Your task to perform on an android device: make emails show in primary in the gmail app Image 0: 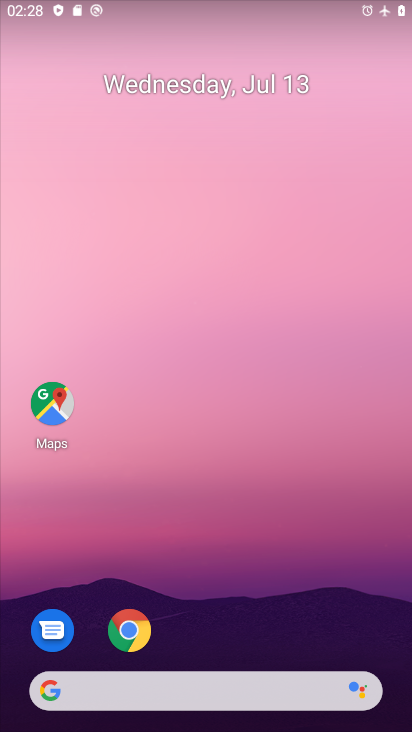
Step 0: drag from (215, 641) to (199, 278)
Your task to perform on an android device: make emails show in primary in the gmail app Image 1: 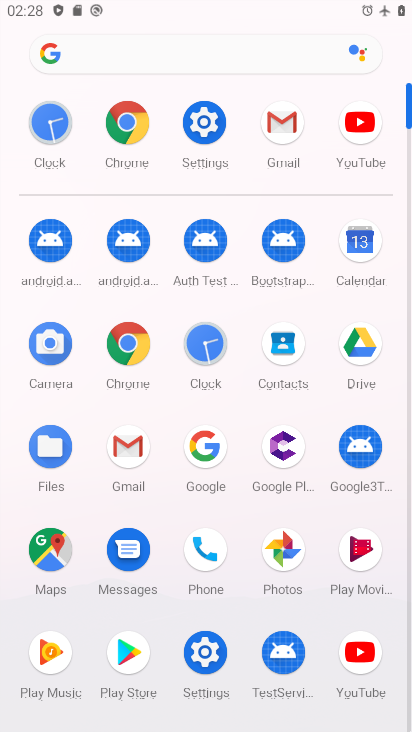
Step 1: click (281, 146)
Your task to perform on an android device: make emails show in primary in the gmail app Image 2: 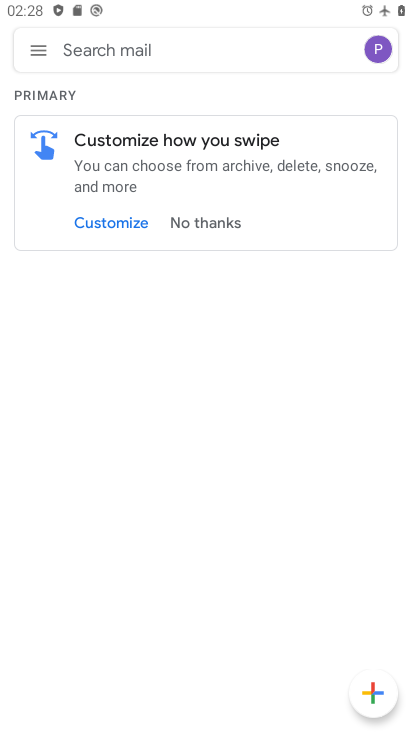
Step 2: click (50, 44)
Your task to perform on an android device: make emails show in primary in the gmail app Image 3: 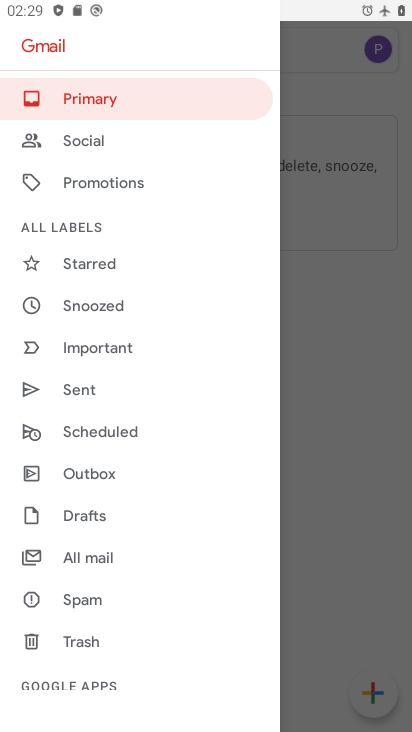
Step 3: drag from (132, 655) to (151, 376)
Your task to perform on an android device: make emails show in primary in the gmail app Image 4: 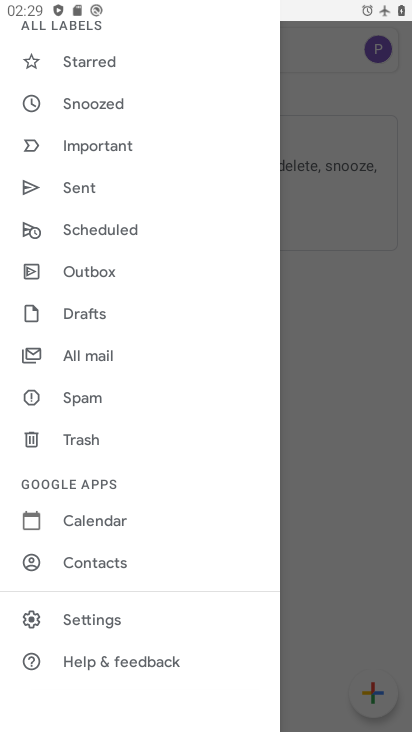
Step 4: click (87, 613)
Your task to perform on an android device: make emails show in primary in the gmail app Image 5: 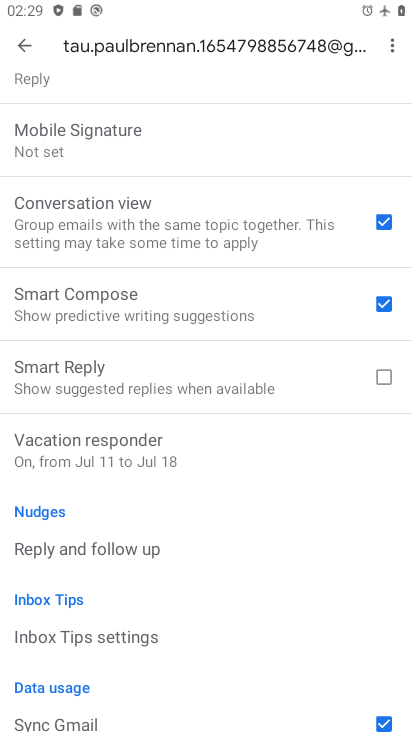
Step 5: drag from (142, 179) to (145, 434)
Your task to perform on an android device: make emails show in primary in the gmail app Image 6: 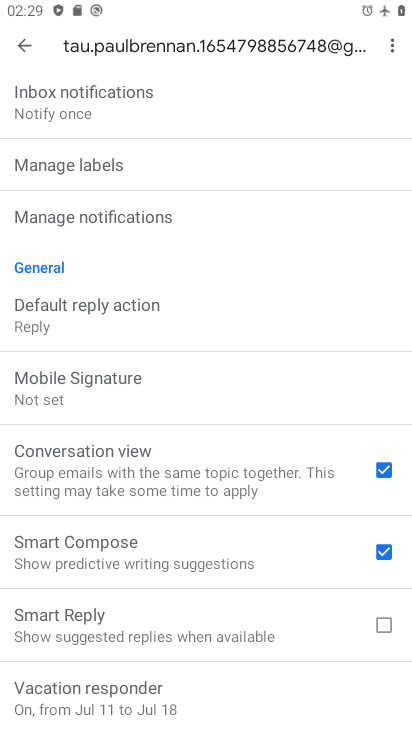
Step 6: drag from (129, 233) to (160, 420)
Your task to perform on an android device: make emails show in primary in the gmail app Image 7: 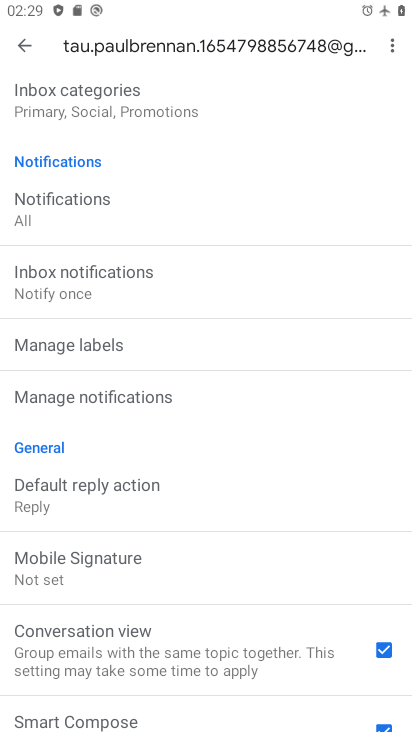
Step 7: drag from (127, 202) to (161, 445)
Your task to perform on an android device: make emails show in primary in the gmail app Image 8: 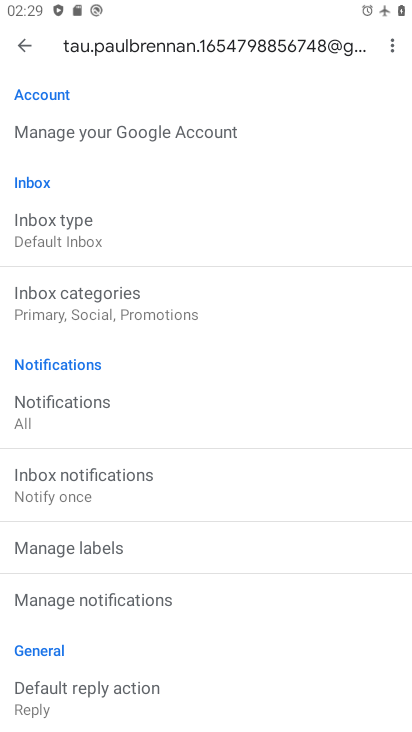
Step 8: click (130, 244)
Your task to perform on an android device: make emails show in primary in the gmail app Image 9: 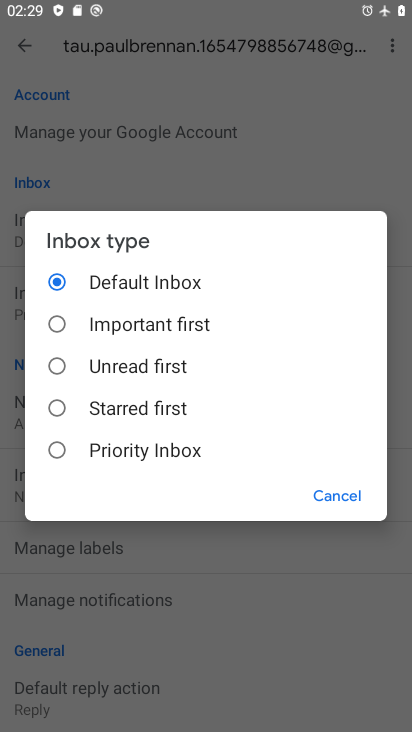
Step 9: task complete